Your task to perform on an android device: create a new album in the google photos Image 0: 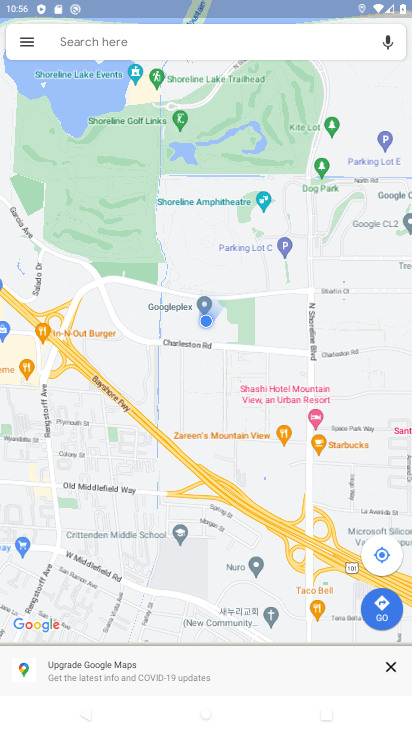
Step 0: press home button
Your task to perform on an android device: create a new album in the google photos Image 1: 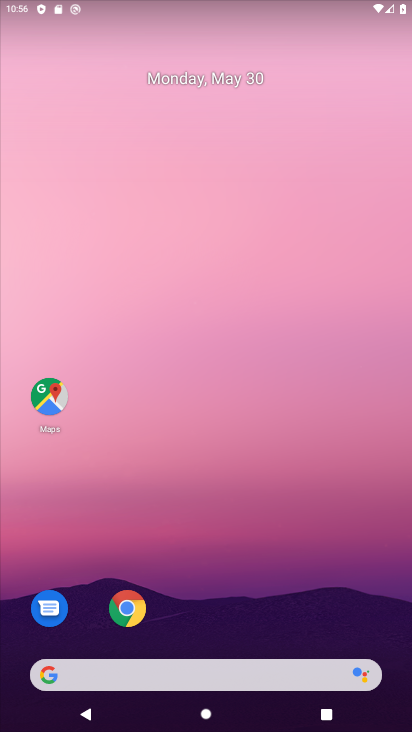
Step 1: drag from (245, 641) to (290, 1)
Your task to perform on an android device: create a new album in the google photos Image 2: 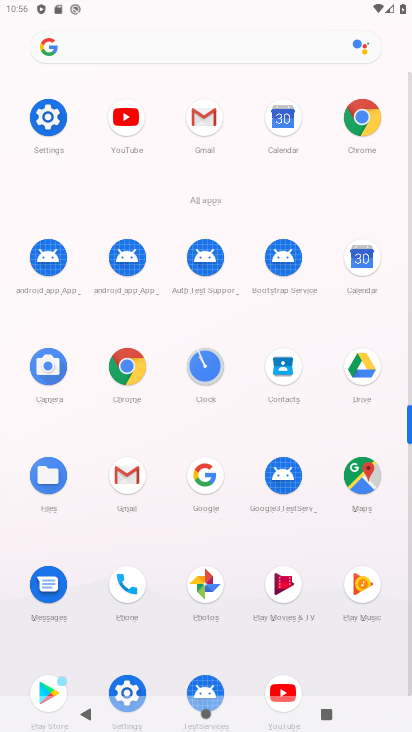
Step 2: click (204, 591)
Your task to perform on an android device: create a new album in the google photos Image 3: 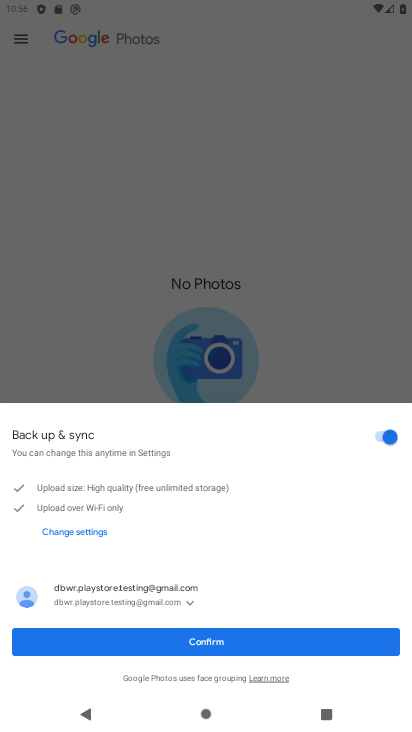
Step 3: click (199, 634)
Your task to perform on an android device: create a new album in the google photos Image 4: 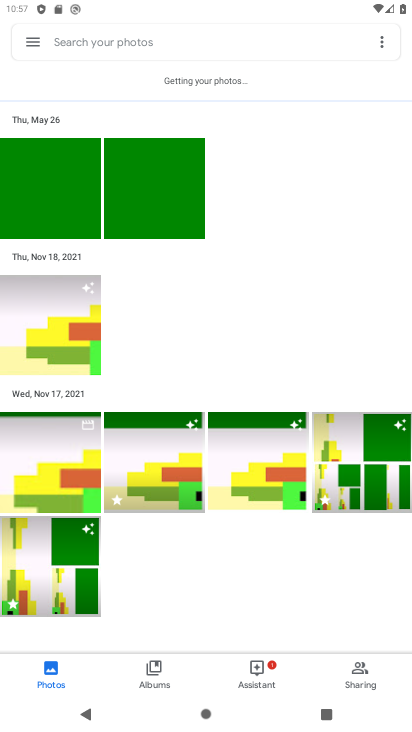
Step 4: click (43, 344)
Your task to perform on an android device: create a new album in the google photos Image 5: 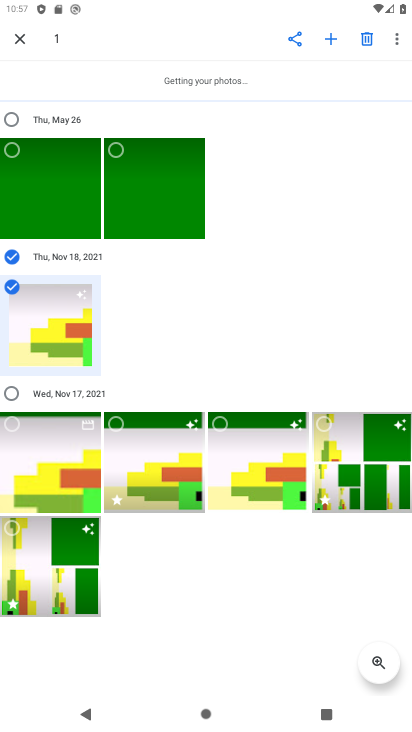
Step 5: click (331, 45)
Your task to perform on an android device: create a new album in the google photos Image 6: 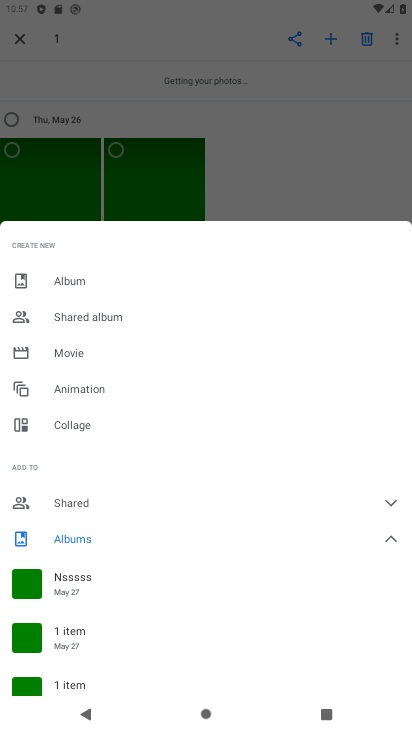
Step 6: click (68, 279)
Your task to perform on an android device: create a new album in the google photos Image 7: 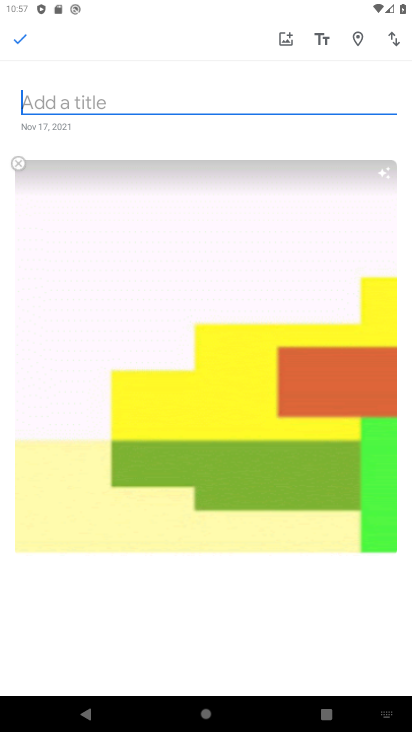
Step 7: click (117, 98)
Your task to perform on an android device: create a new album in the google photos Image 8: 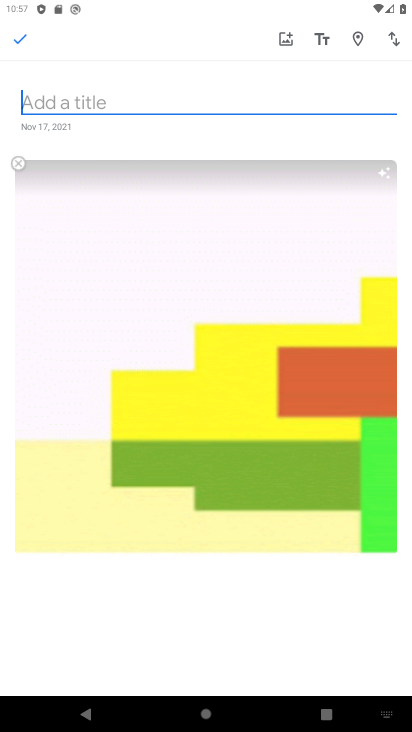
Step 8: type "new 1"
Your task to perform on an android device: create a new album in the google photos Image 9: 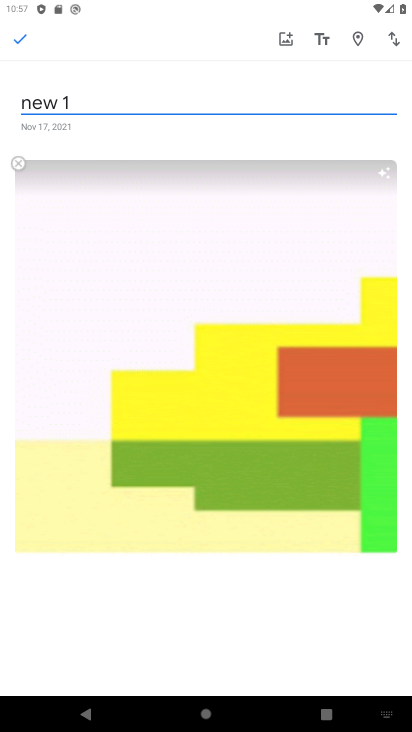
Step 9: click (13, 40)
Your task to perform on an android device: create a new album in the google photos Image 10: 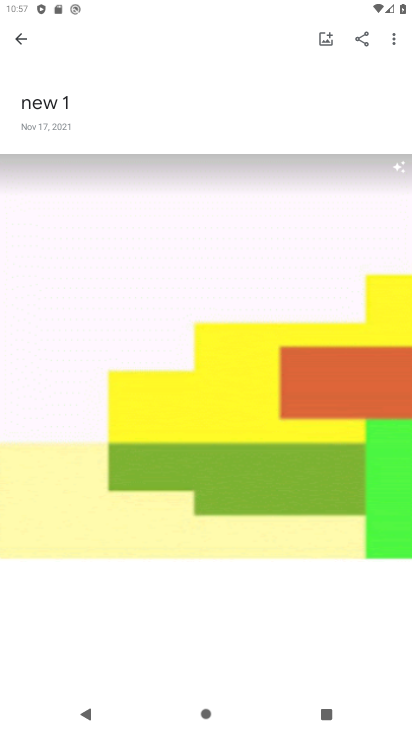
Step 10: task complete